Your task to perform on an android device: Open the phone app and click the voicemail tab. Image 0: 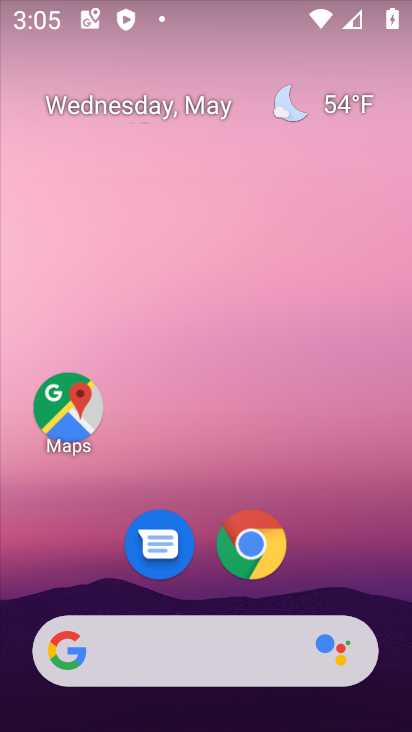
Step 0: drag from (340, 582) to (143, 12)
Your task to perform on an android device: Open the phone app and click the voicemail tab. Image 1: 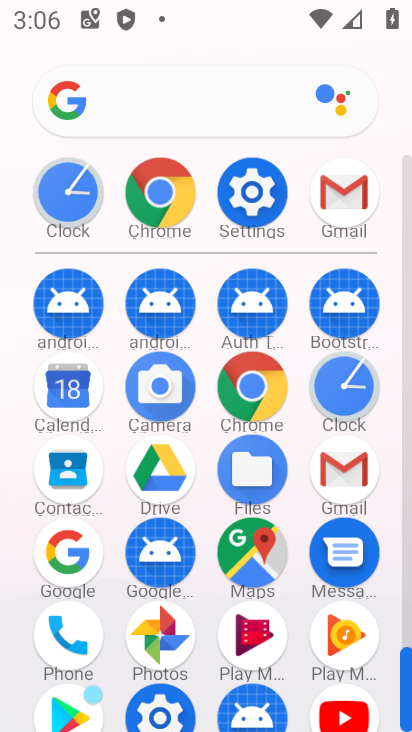
Step 1: click (382, 573)
Your task to perform on an android device: Open the phone app and click the voicemail tab. Image 2: 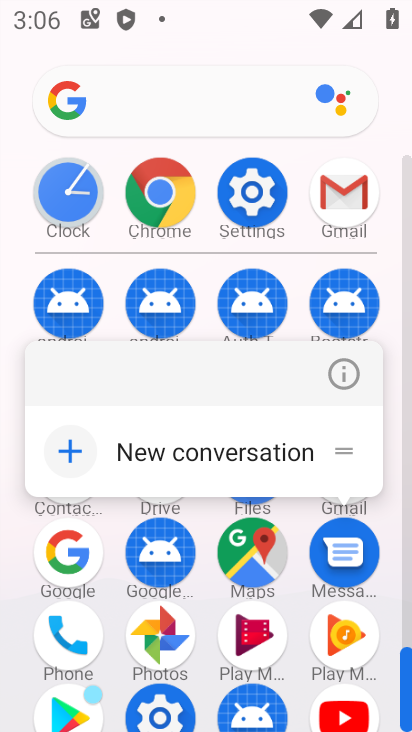
Step 2: drag from (399, 660) to (399, 563)
Your task to perform on an android device: Open the phone app and click the voicemail tab. Image 3: 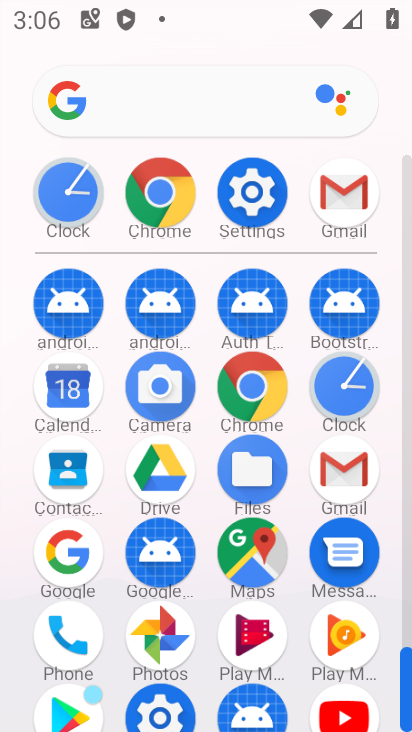
Step 3: drag from (407, 669) to (396, 600)
Your task to perform on an android device: Open the phone app and click the voicemail tab. Image 4: 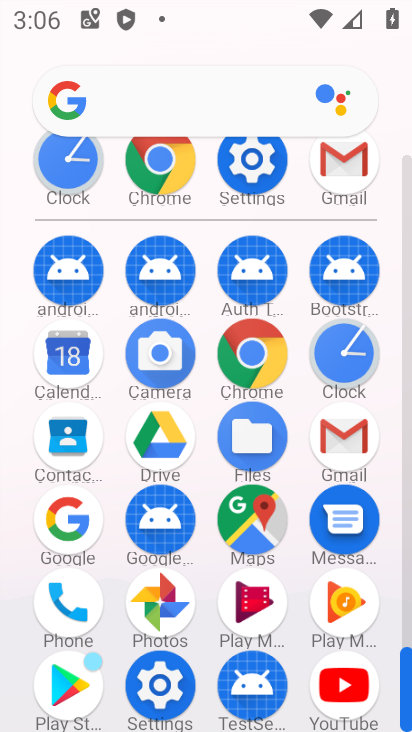
Step 4: click (400, 655)
Your task to perform on an android device: Open the phone app and click the voicemail tab. Image 5: 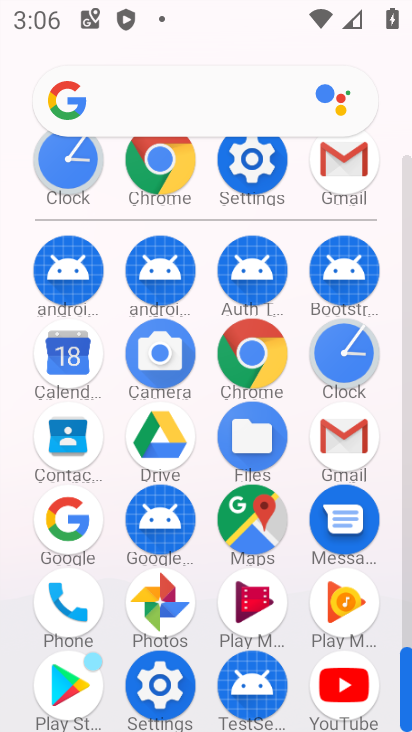
Step 5: click (49, 595)
Your task to perform on an android device: Open the phone app and click the voicemail tab. Image 6: 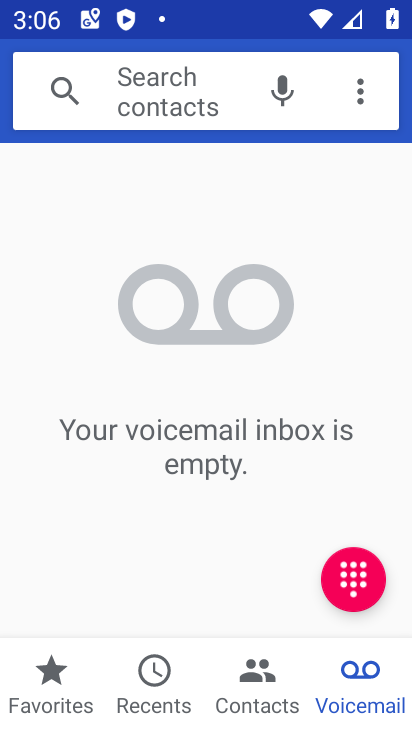
Step 6: click (350, 629)
Your task to perform on an android device: Open the phone app and click the voicemail tab. Image 7: 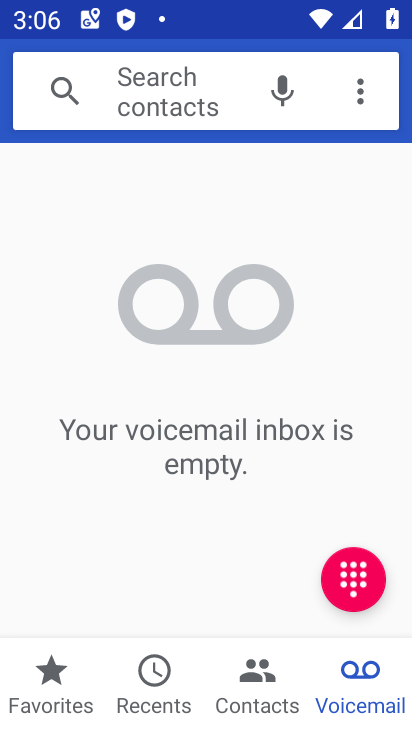
Step 7: task complete